Your task to perform on an android device: Add logitech g pro to the cart on walmart.com Image 0: 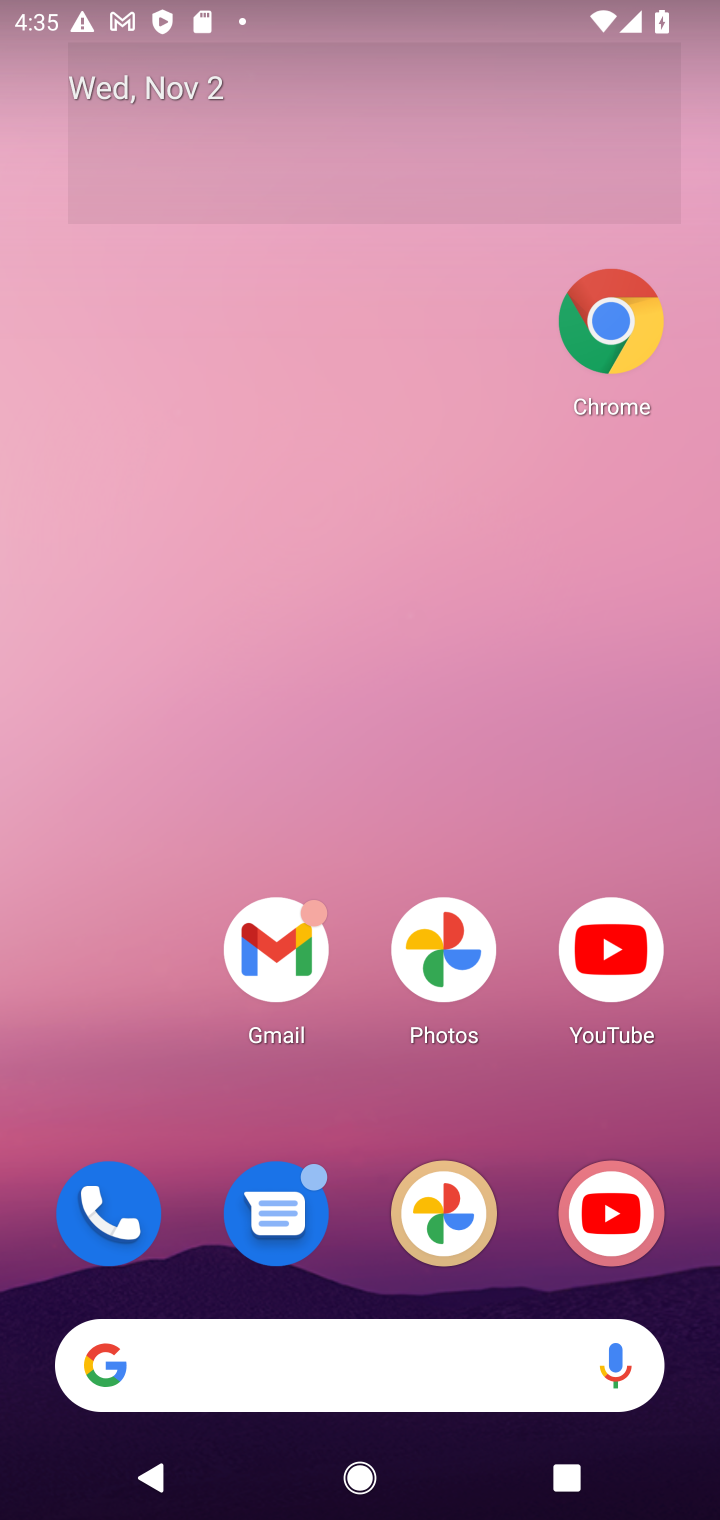
Step 0: drag from (381, 1112) to (436, 379)
Your task to perform on an android device: Add logitech g pro to the cart on walmart.com Image 1: 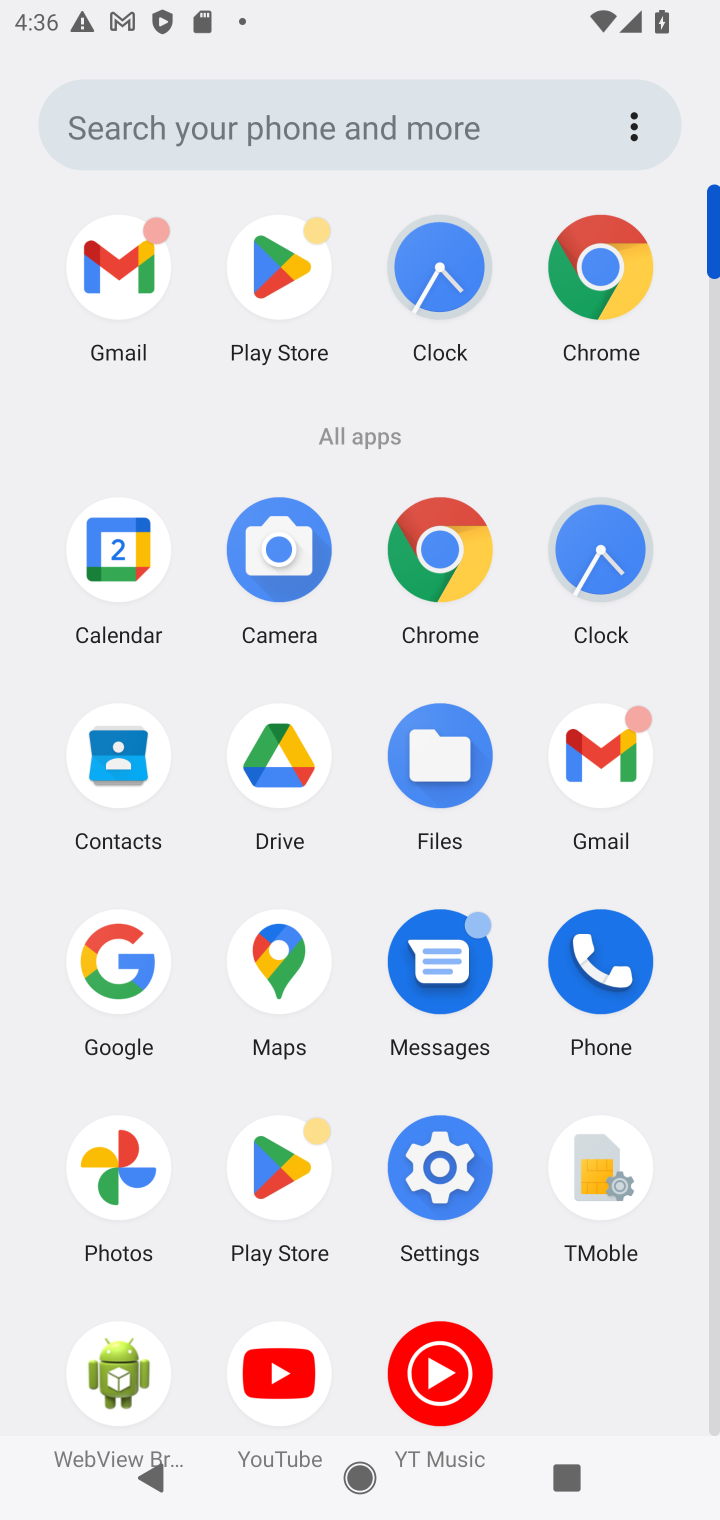
Step 1: click (126, 975)
Your task to perform on an android device: Add logitech g pro to the cart on walmart.com Image 2: 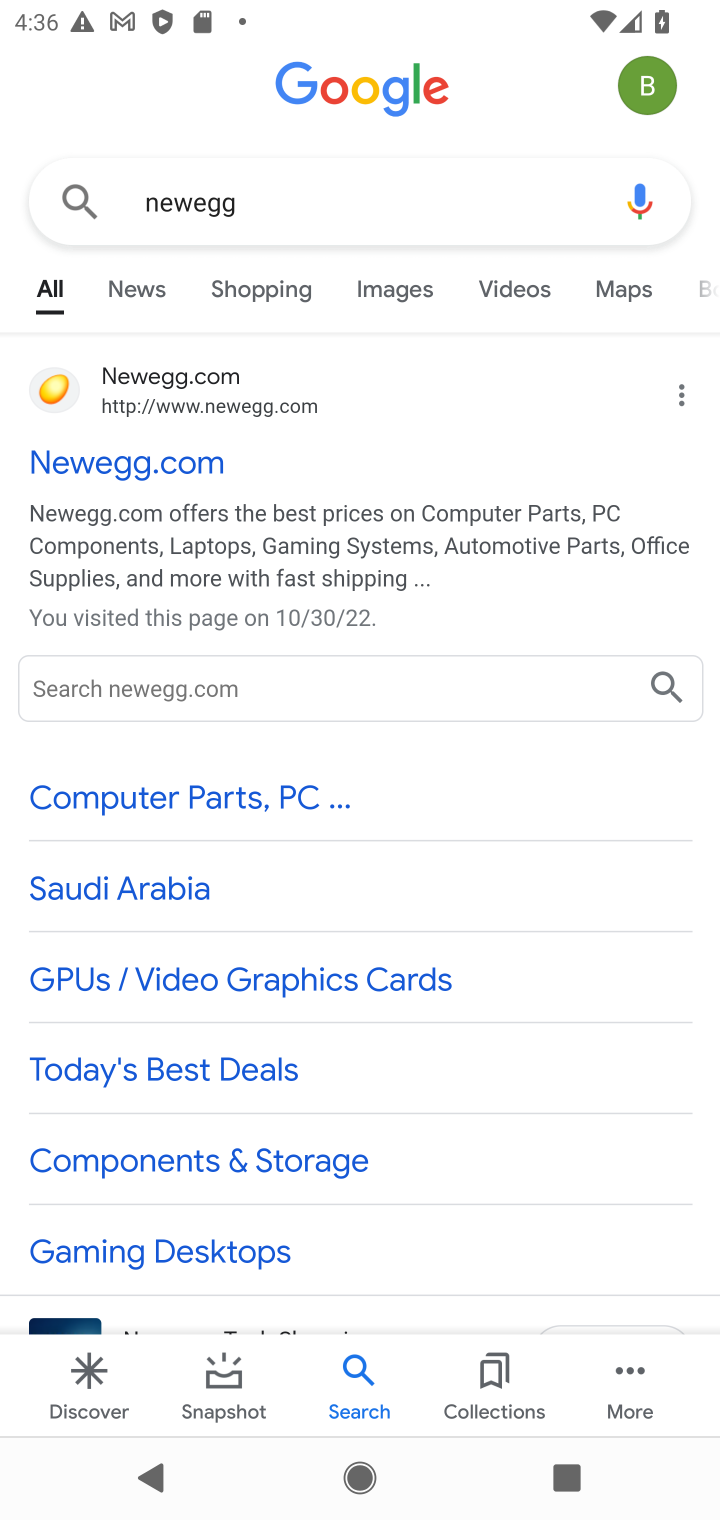
Step 2: click (464, 212)
Your task to perform on an android device: Add logitech g pro to the cart on walmart.com Image 3: 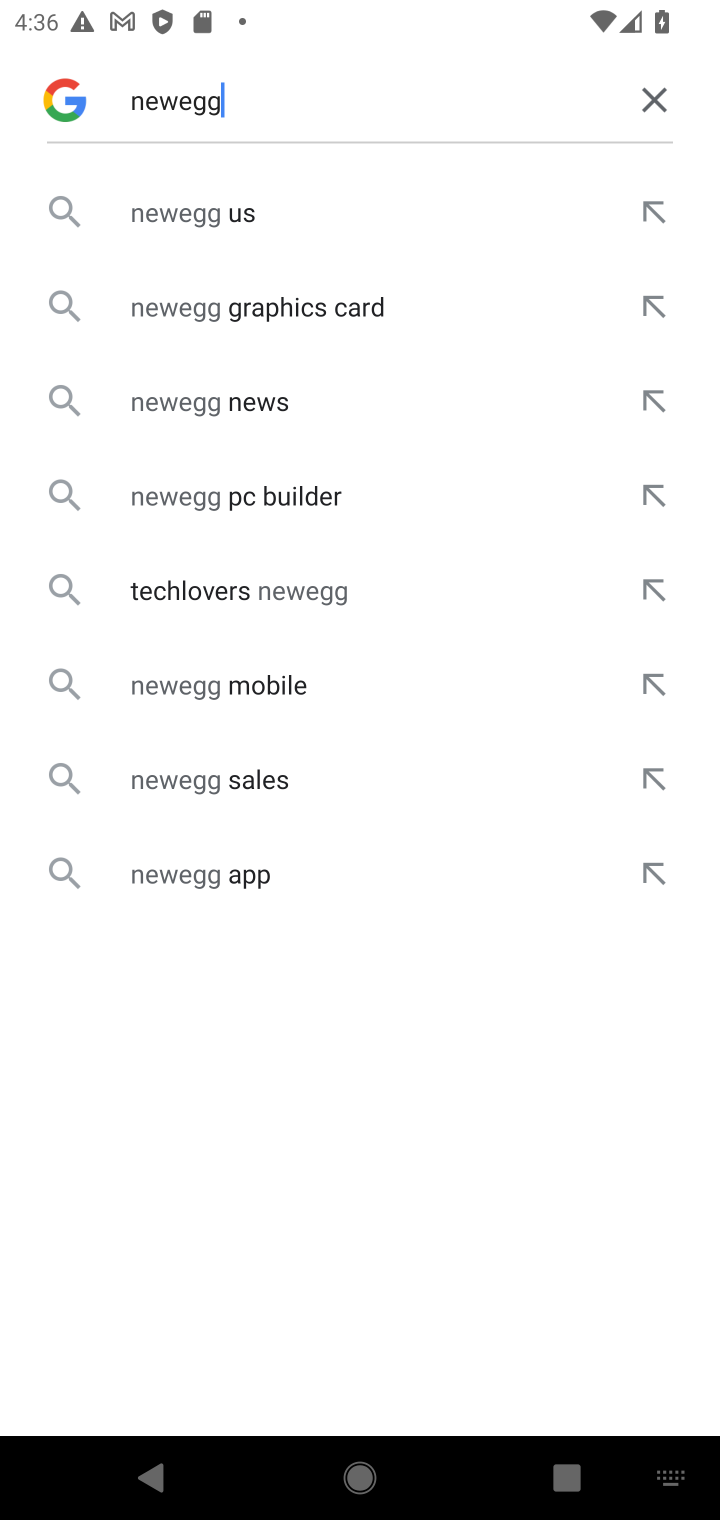
Step 3: click (646, 104)
Your task to perform on an android device: Add logitech g pro to the cart on walmart.com Image 4: 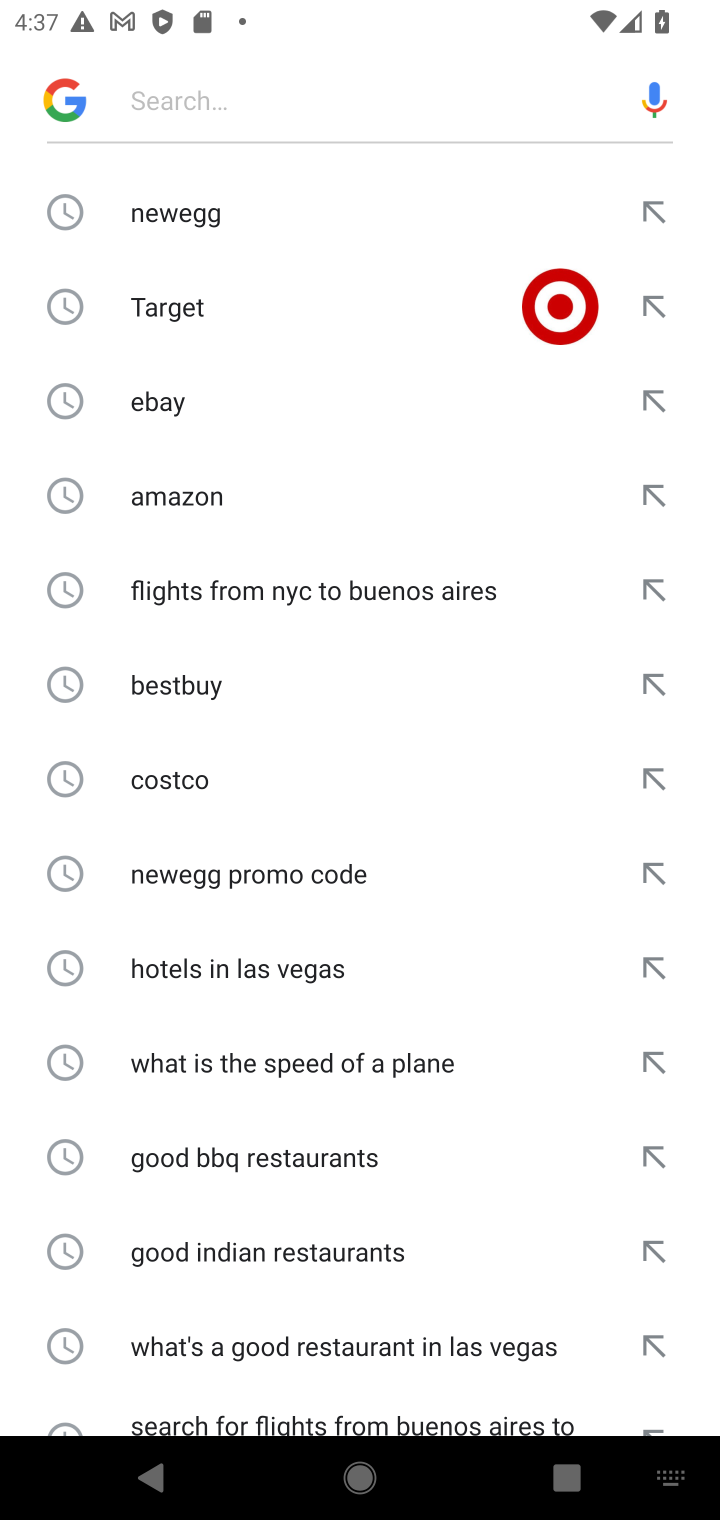
Step 4: type "walmart.com"
Your task to perform on an android device: Add logitech g pro to the cart on walmart.com Image 5: 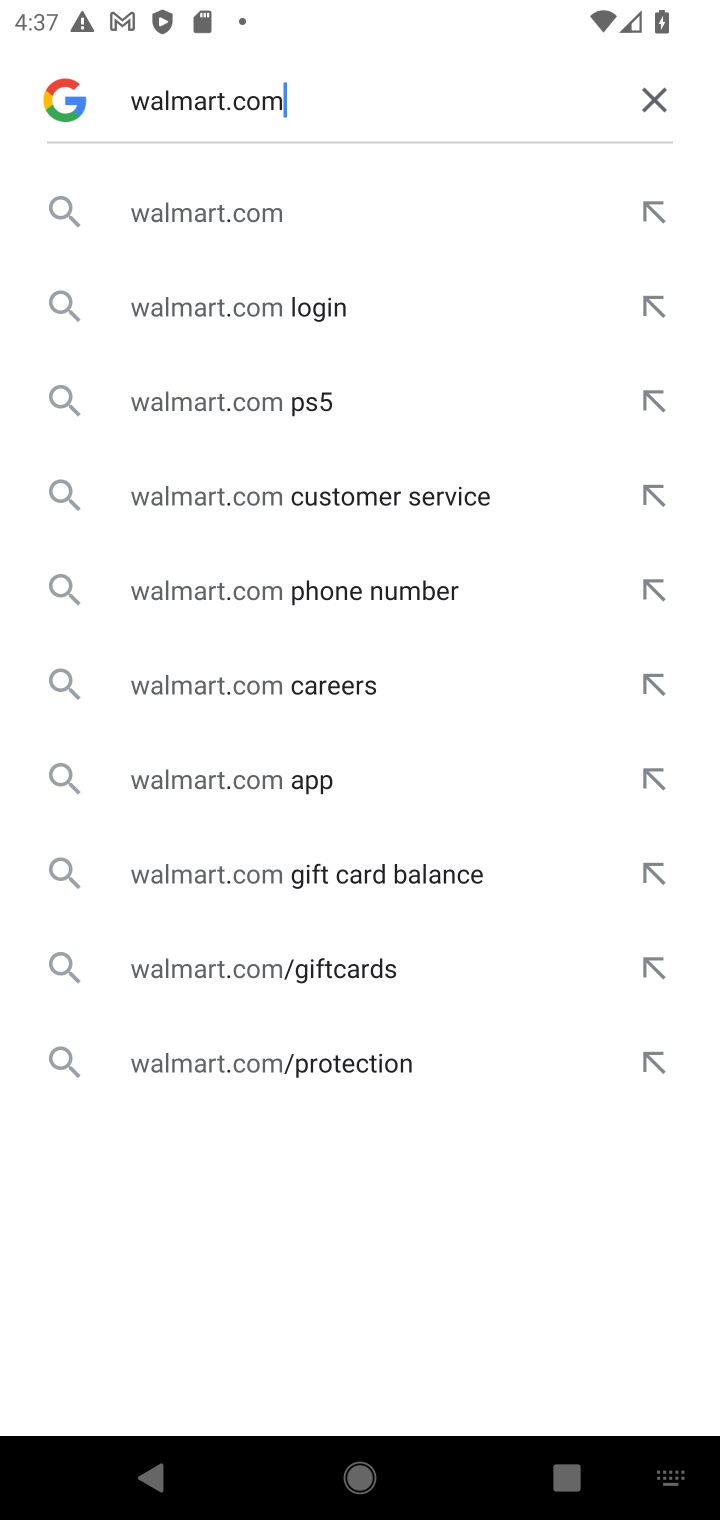
Step 5: click (308, 212)
Your task to perform on an android device: Add logitech g pro to the cart on walmart.com Image 6: 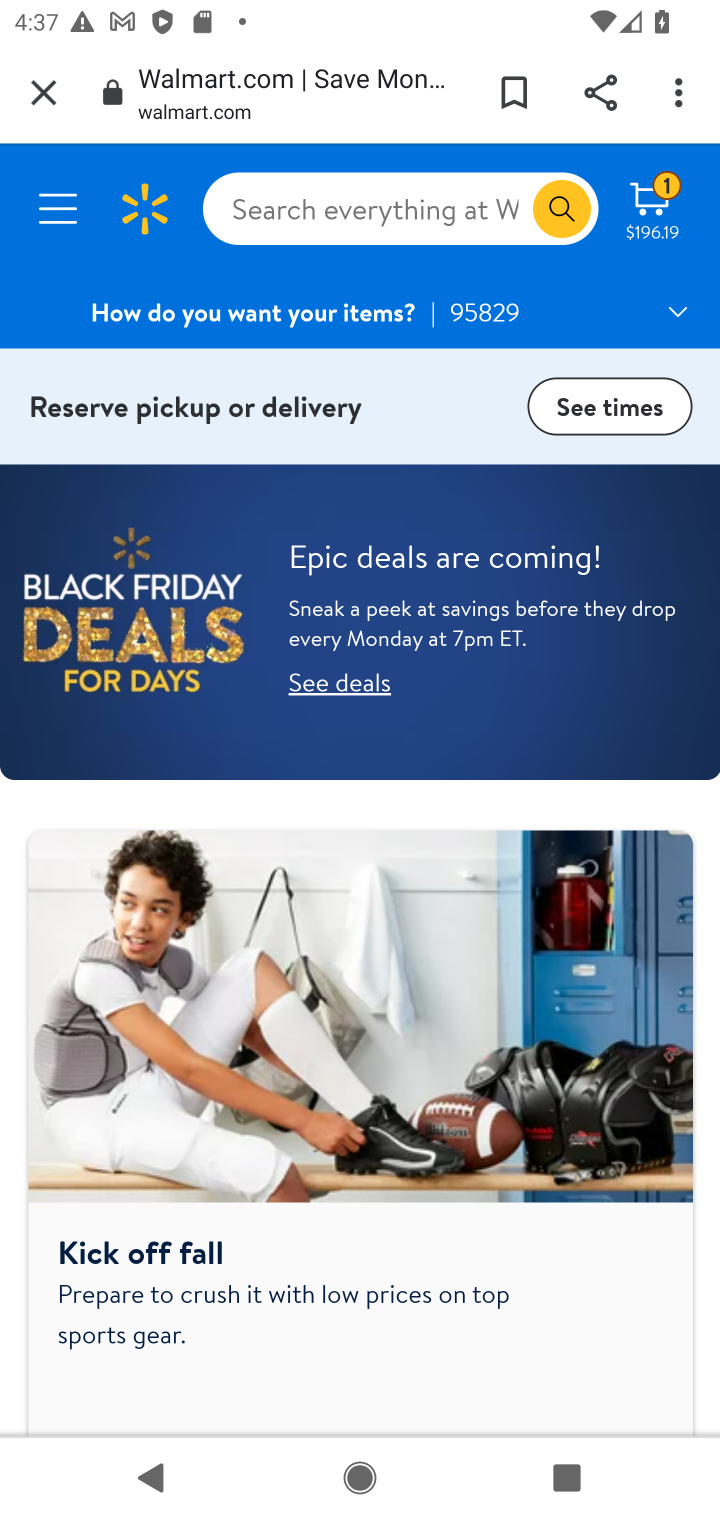
Step 6: click (333, 225)
Your task to perform on an android device: Add logitech g pro to the cart on walmart.com Image 7: 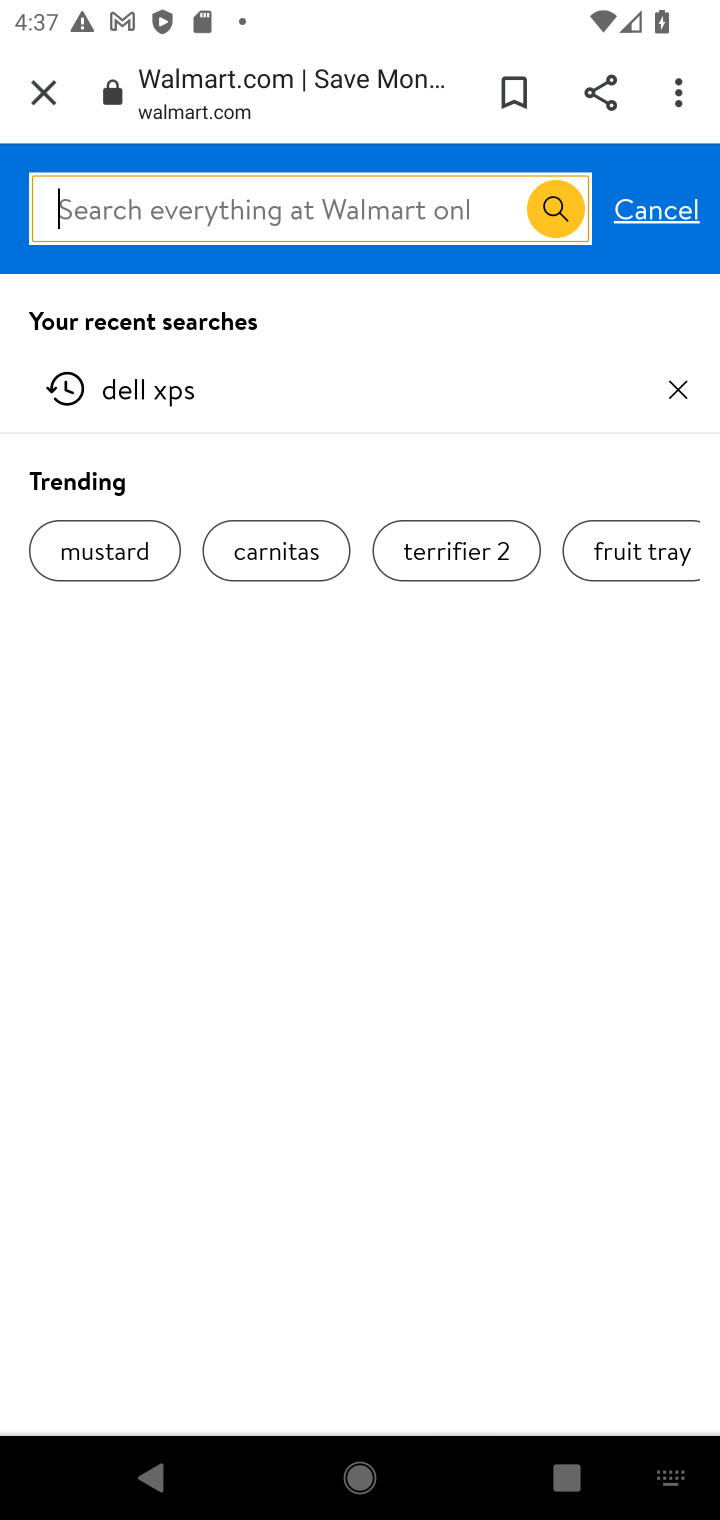
Step 7: type "logitech g pro"
Your task to perform on an android device: Add logitech g pro to the cart on walmart.com Image 8: 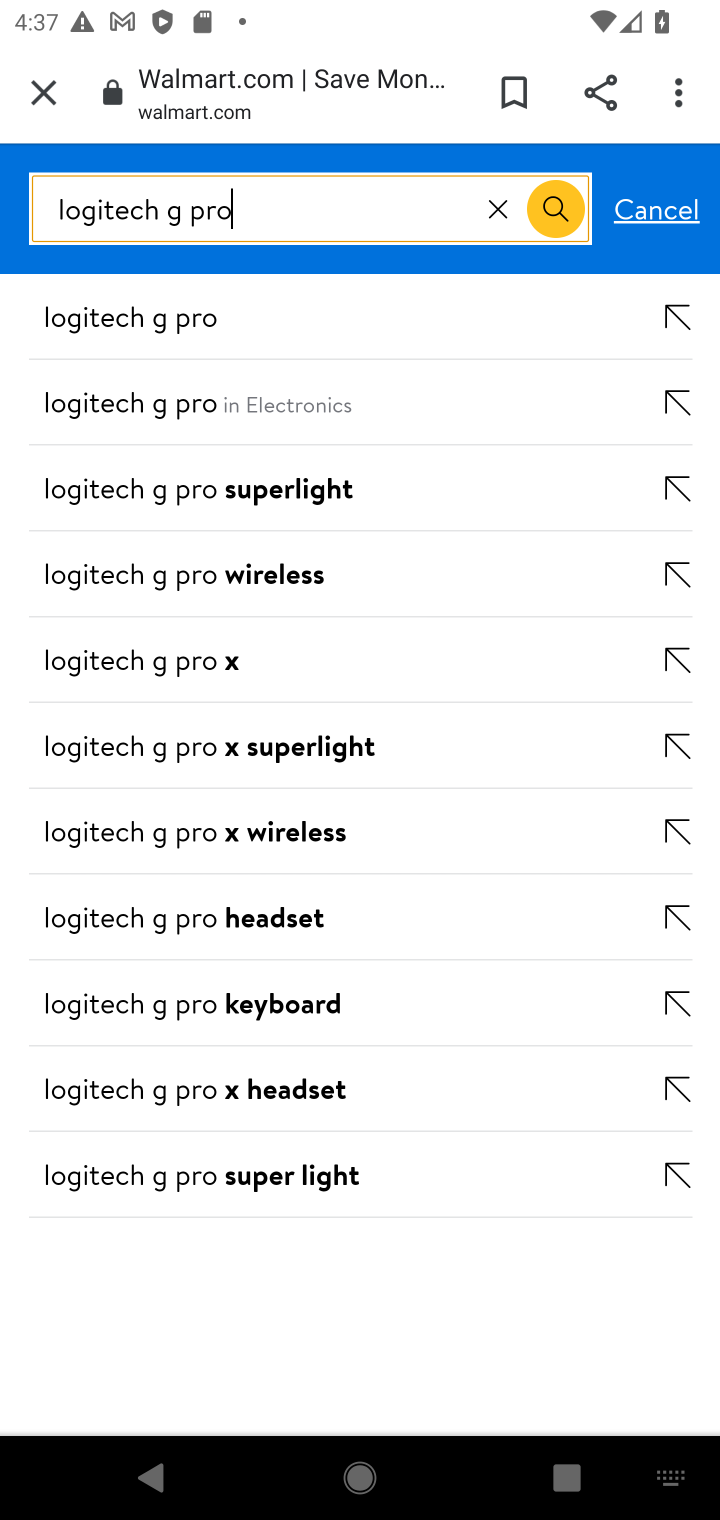
Step 8: click (276, 308)
Your task to perform on an android device: Add logitech g pro to the cart on walmart.com Image 9: 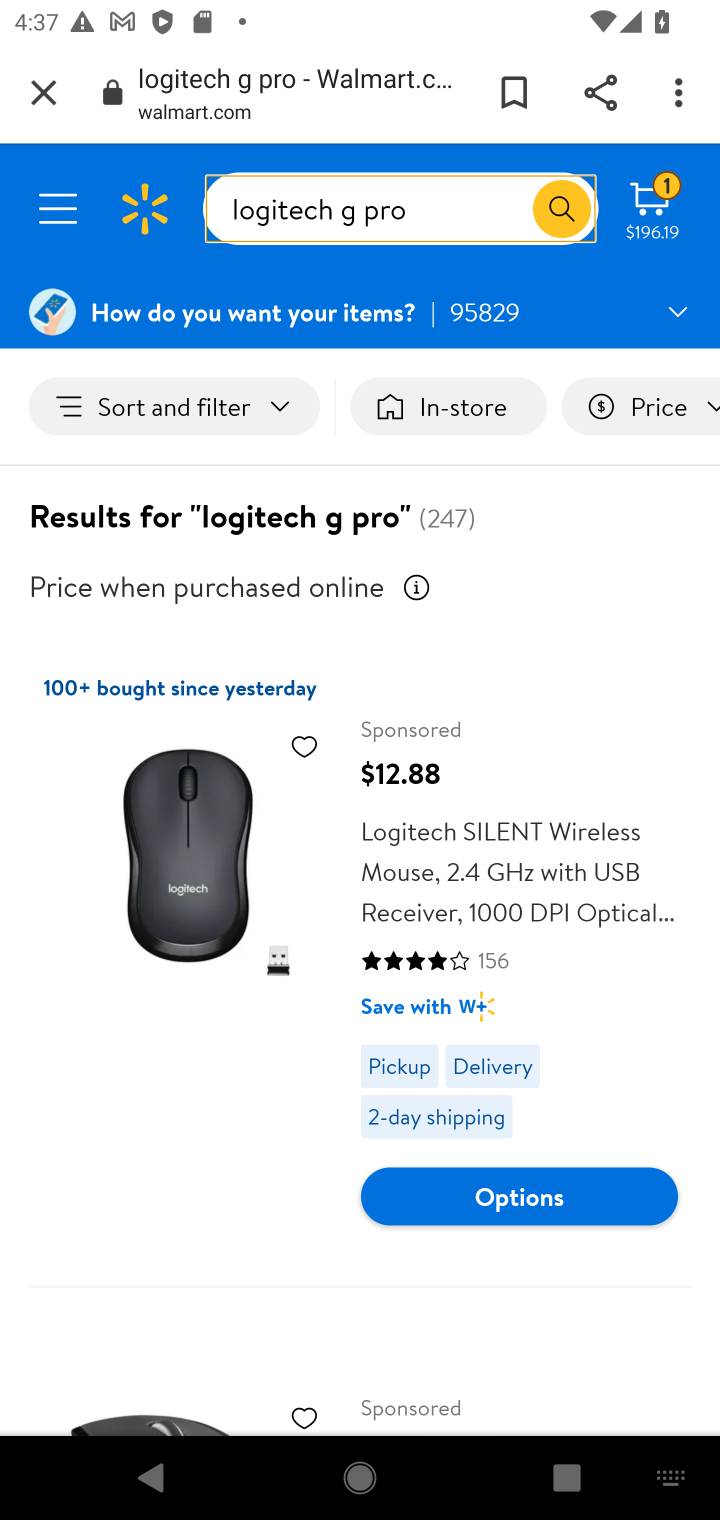
Step 9: drag from (520, 1123) to (630, 574)
Your task to perform on an android device: Add logitech g pro to the cart on walmart.com Image 10: 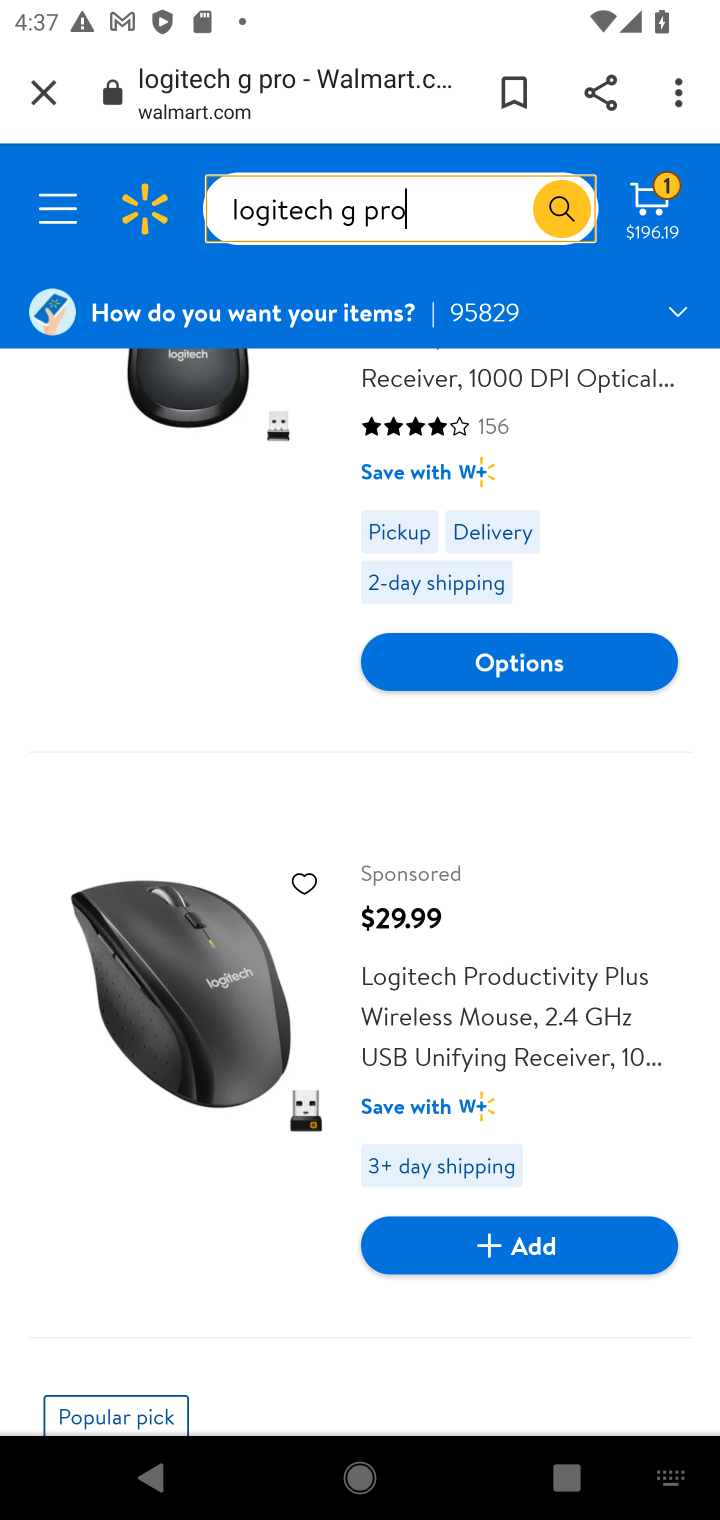
Step 10: click (604, 1254)
Your task to perform on an android device: Add logitech g pro to the cart on walmart.com Image 11: 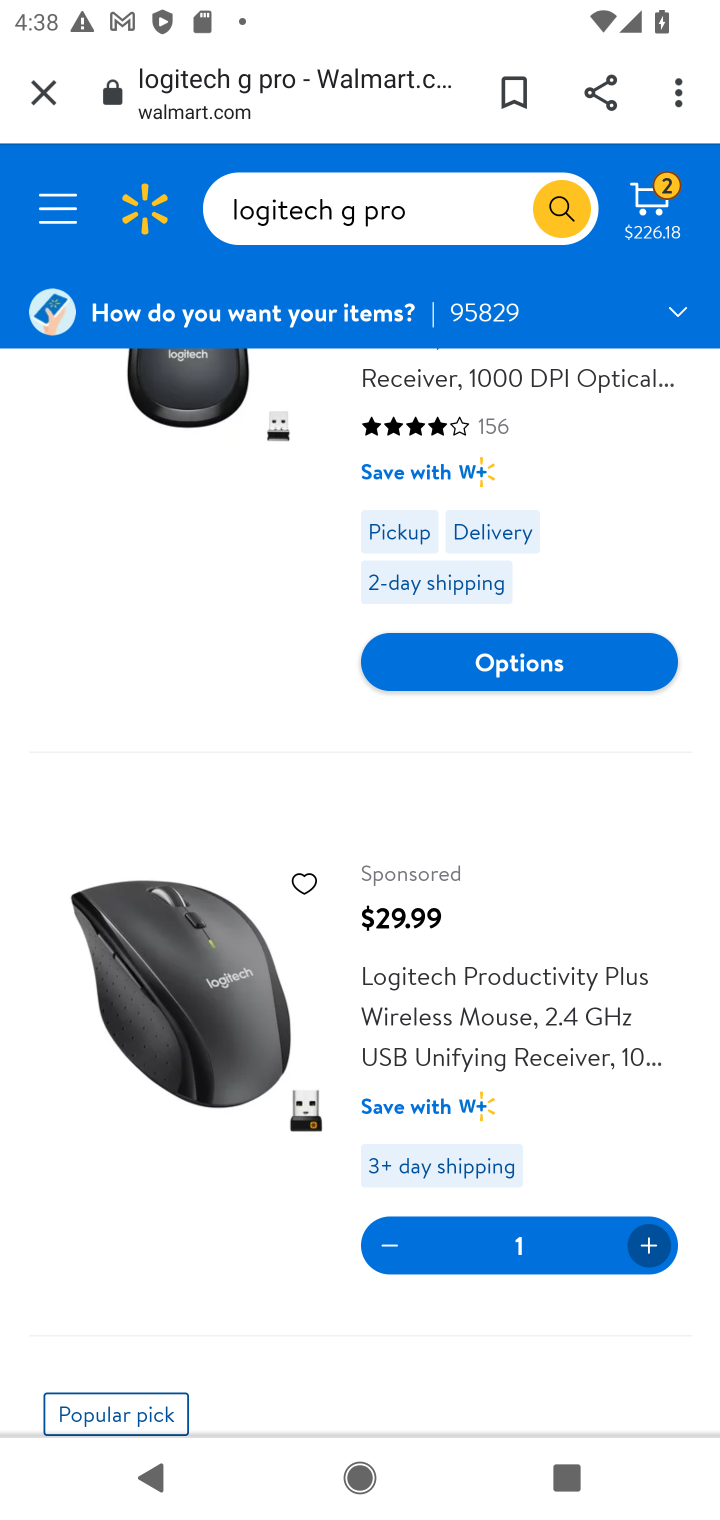
Step 11: task complete